Your task to perform on an android device: What's the weather today? Image 0: 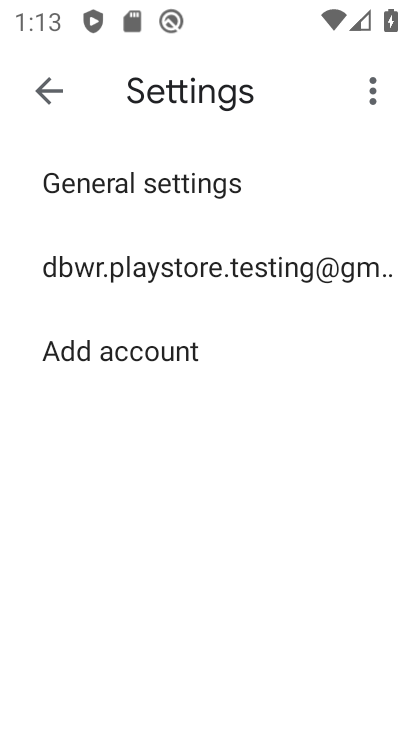
Step 0: press home button
Your task to perform on an android device: What's the weather today? Image 1: 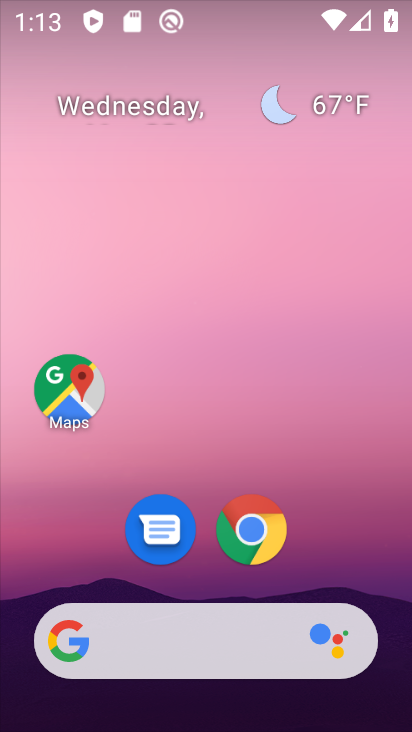
Step 1: drag from (329, 548) to (286, 89)
Your task to perform on an android device: What's the weather today? Image 2: 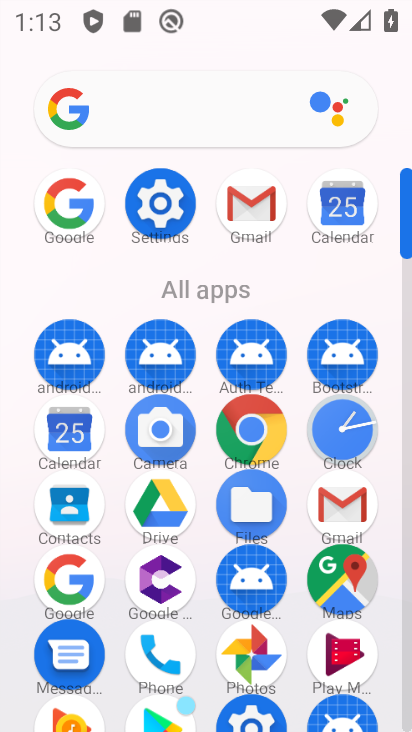
Step 2: click (64, 203)
Your task to perform on an android device: What's the weather today? Image 3: 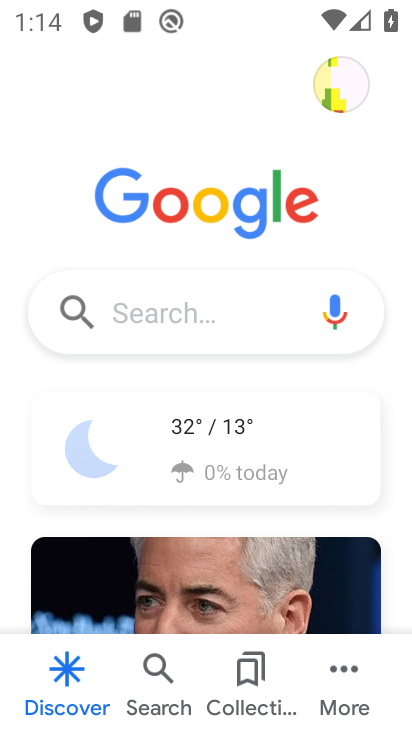
Step 3: click (160, 315)
Your task to perform on an android device: What's the weather today? Image 4: 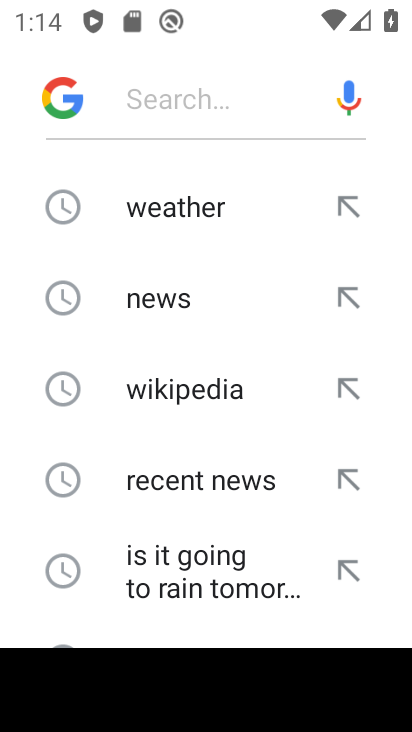
Step 4: click (183, 208)
Your task to perform on an android device: What's the weather today? Image 5: 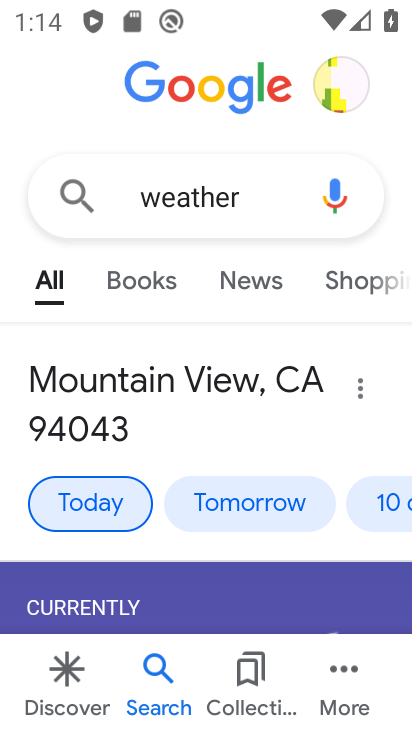
Step 5: task complete